Your task to perform on an android device: Go to location settings Image 0: 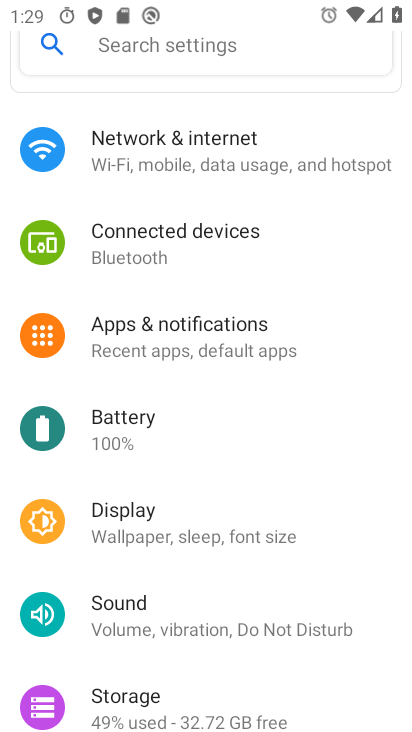
Step 0: press home button
Your task to perform on an android device: Go to location settings Image 1: 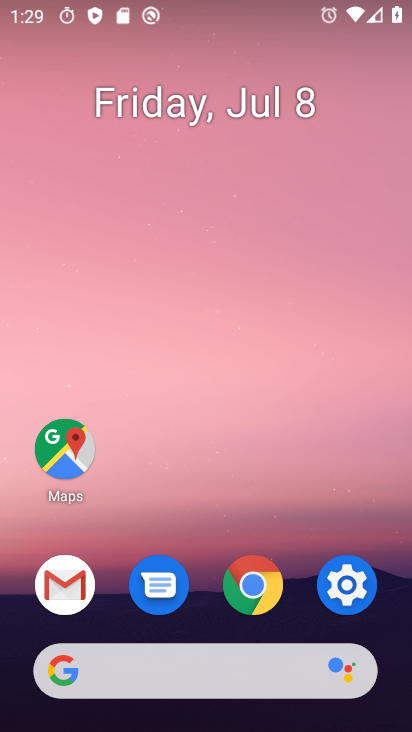
Step 1: click (346, 597)
Your task to perform on an android device: Go to location settings Image 2: 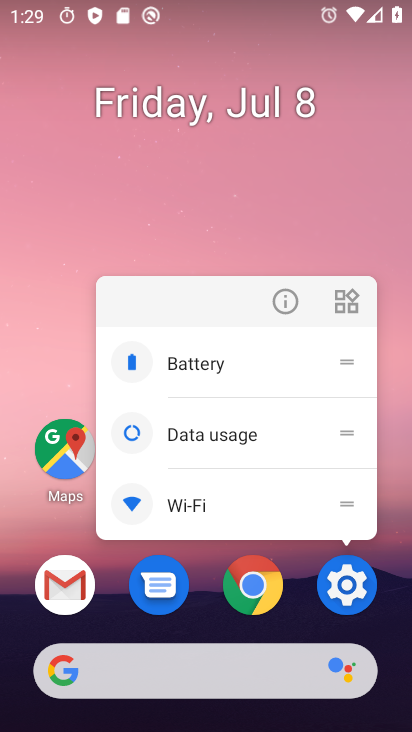
Step 2: click (346, 598)
Your task to perform on an android device: Go to location settings Image 3: 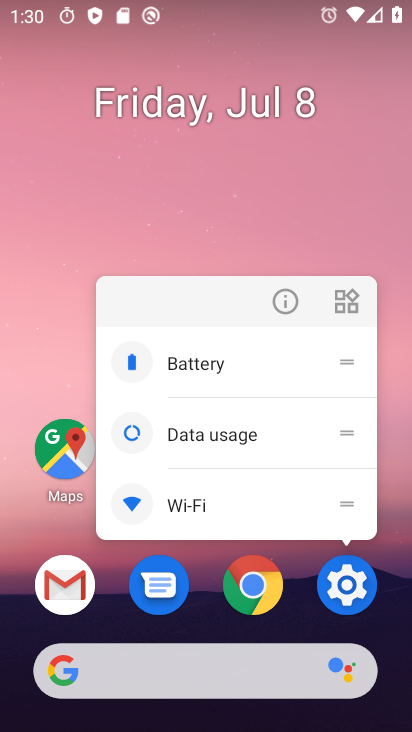
Step 3: click (346, 598)
Your task to perform on an android device: Go to location settings Image 4: 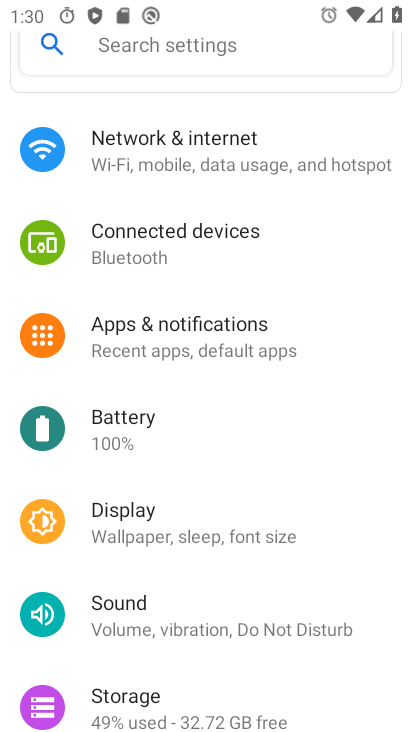
Step 4: drag from (132, 683) to (150, 563)
Your task to perform on an android device: Go to location settings Image 5: 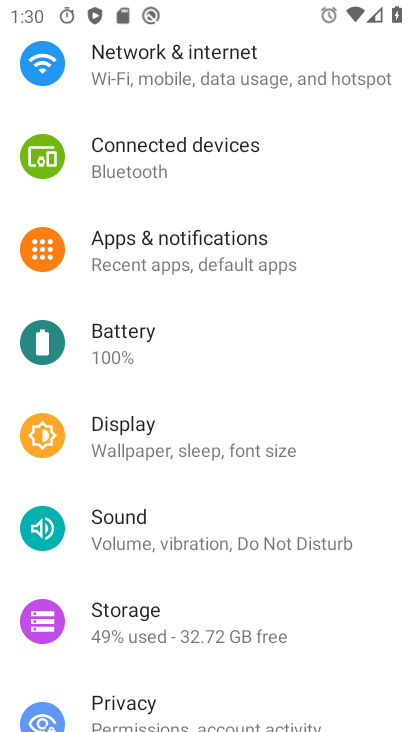
Step 5: drag from (149, 563) to (190, 438)
Your task to perform on an android device: Go to location settings Image 6: 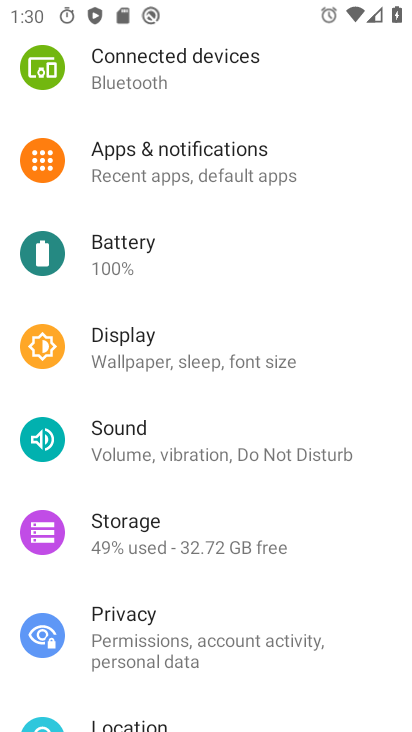
Step 6: click (143, 708)
Your task to perform on an android device: Go to location settings Image 7: 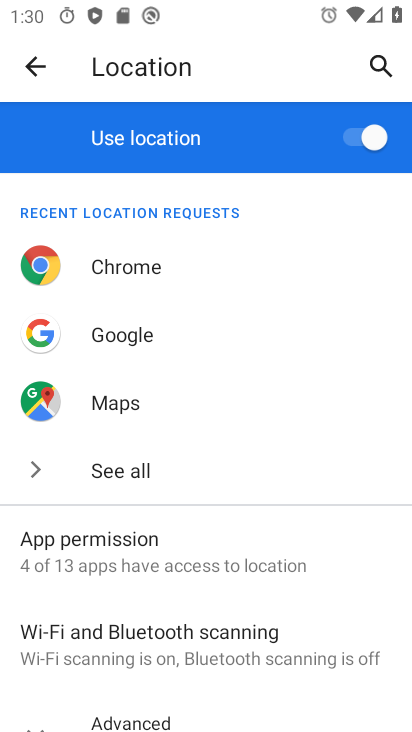
Step 7: drag from (137, 659) to (155, 596)
Your task to perform on an android device: Go to location settings Image 8: 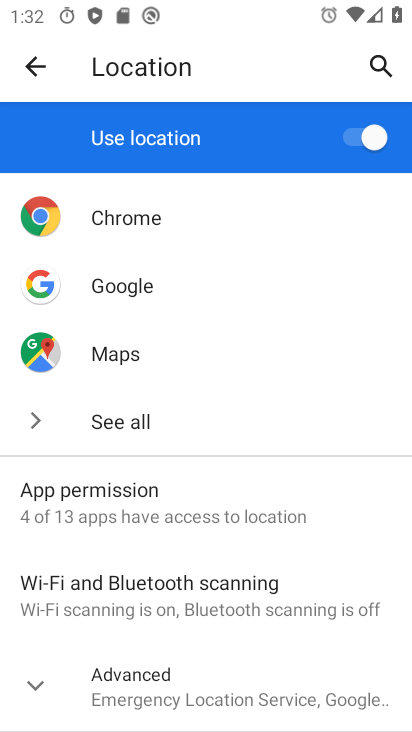
Step 8: click (56, 669)
Your task to perform on an android device: Go to location settings Image 9: 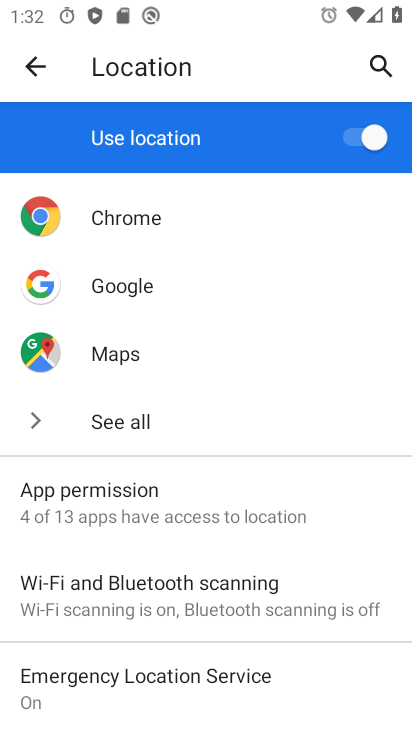
Step 9: task complete